Your task to perform on an android device: check google app version Image 0: 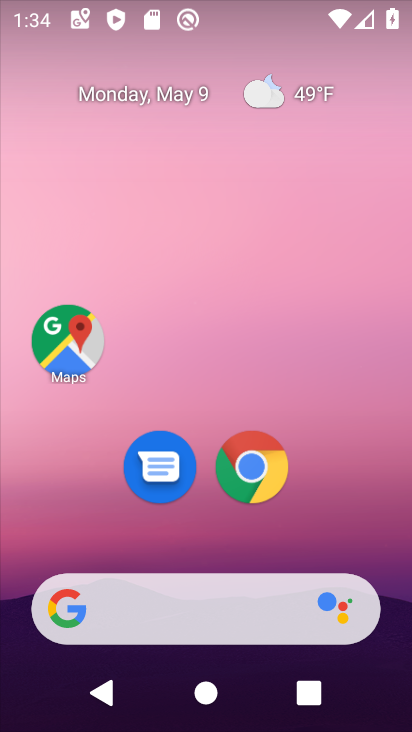
Step 0: press home button
Your task to perform on an android device: check google app version Image 1: 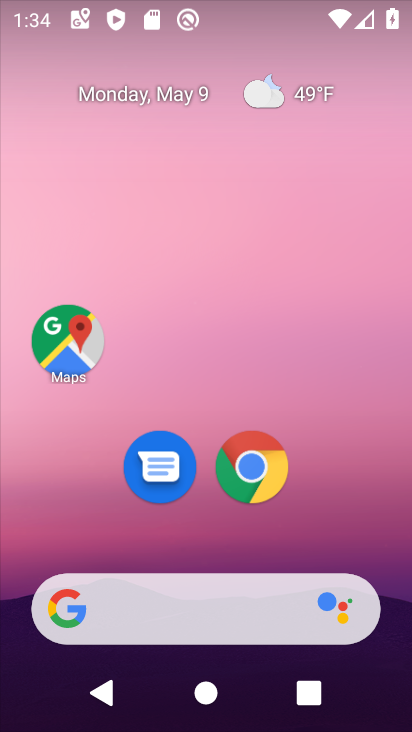
Step 1: drag from (367, 522) to (379, 100)
Your task to perform on an android device: check google app version Image 2: 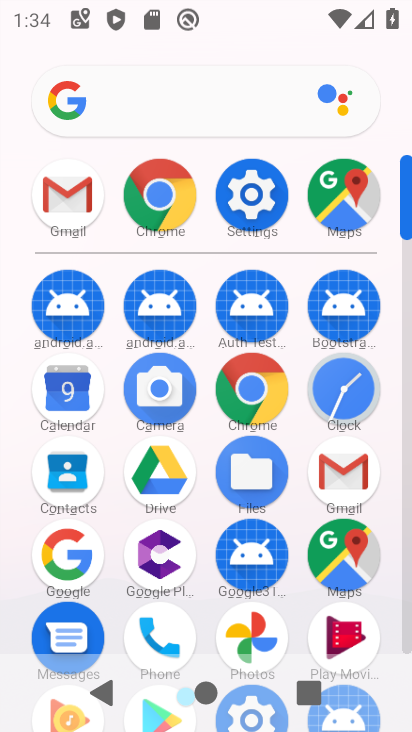
Step 2: click (47, 558)
Your task to perform on an android device: check google app version Image 3: 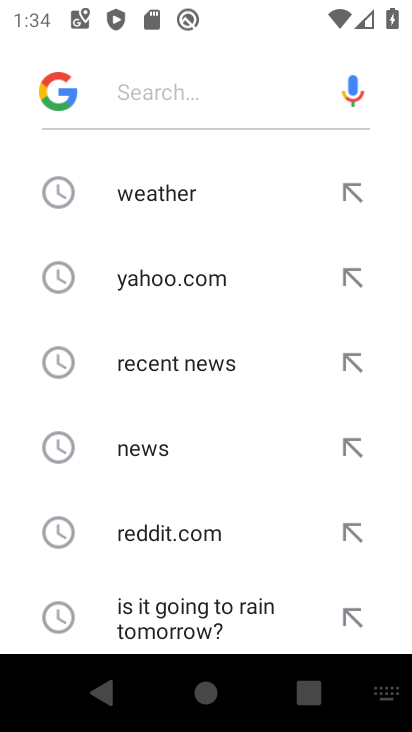
Step 3: press back button
Your task to perform on an android device: check google app version Image 4: 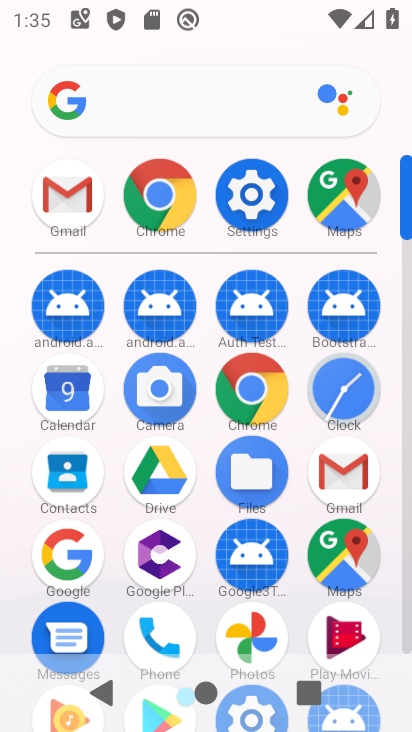
Step 4: drag from (203, 598) to (199, 324)
Your task to perform on an android device: check google app version Image 5: 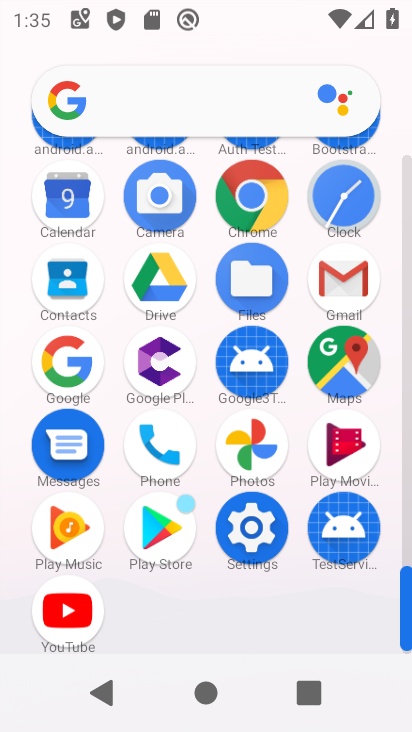
Step 5: click (84, 395)
Your task to perform on an android device: check google app version Image 6: 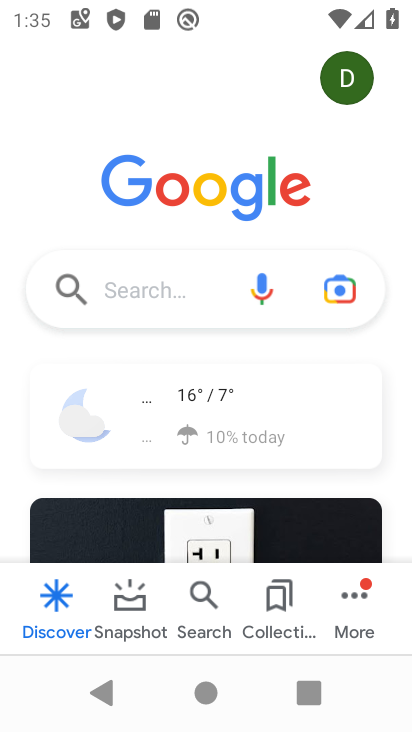
Step 6: click (356, 616)
Your task to perform on an android device: check google app version Image 7: 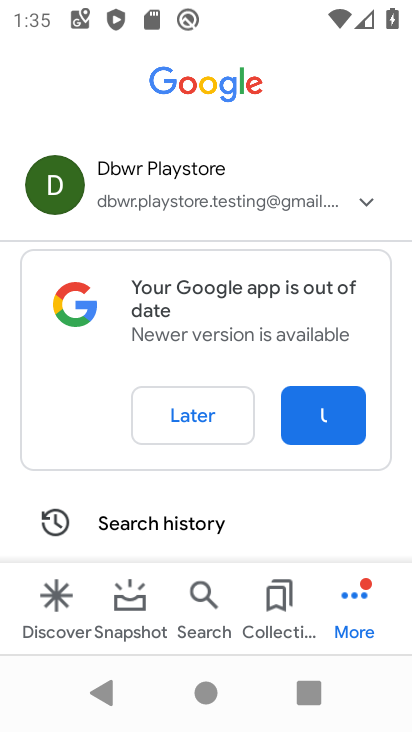
Step 7: drag from (277, 508) to (294, 126)
Your task to perform on an android device: check google app version Image 8: 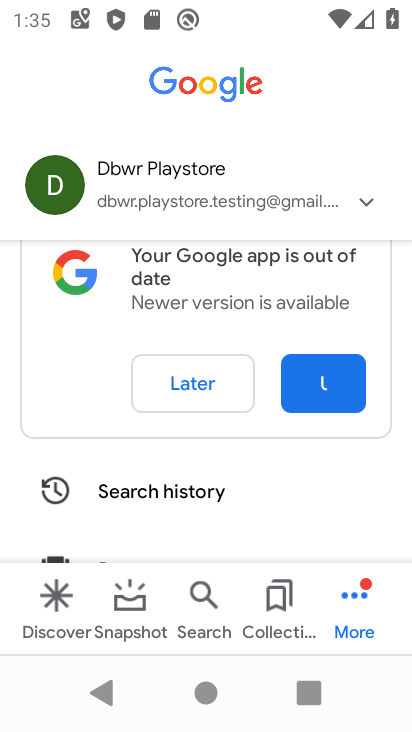
Step 8: drag from (304, 517) to (305, 253)
Your task to perform on an android device: check google app version Image 9: 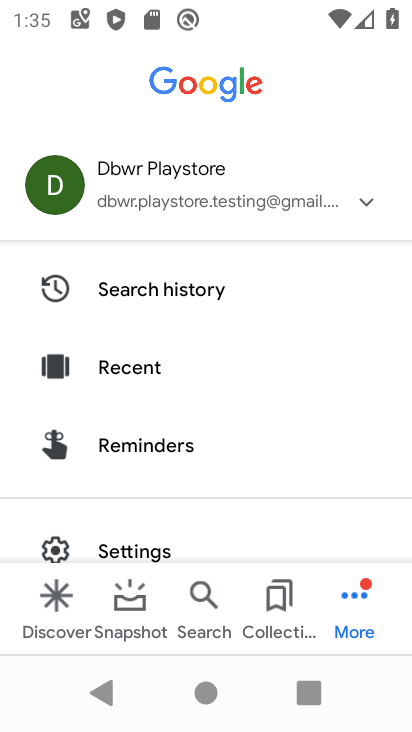
Step 9: drag from (288, 524) to (297, 244)
Your task to perform on an android device: check google app version Image 10: 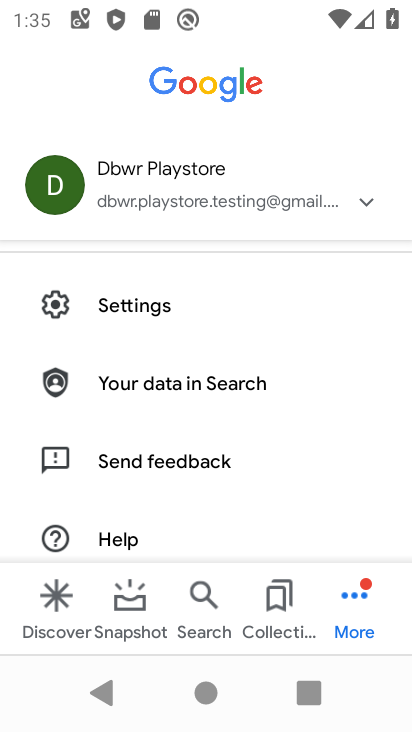
Step 10: click (138, 311)
Your task to perform on an android device: check google app version Image 11: 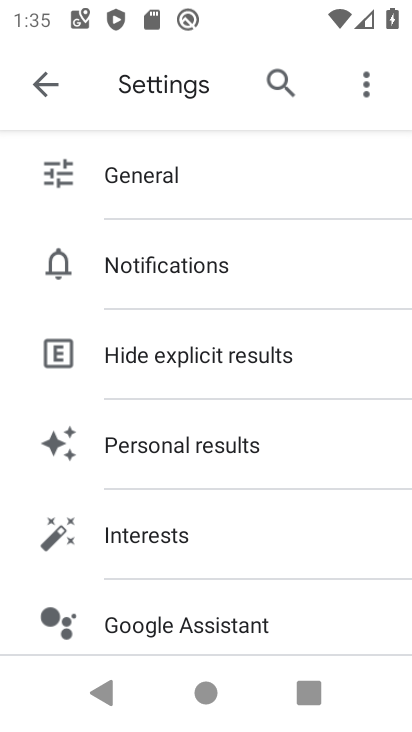
Step 11: drag from (293, 572) to (285, 204)
Your task to perform on an android device: check google app version Image 12: 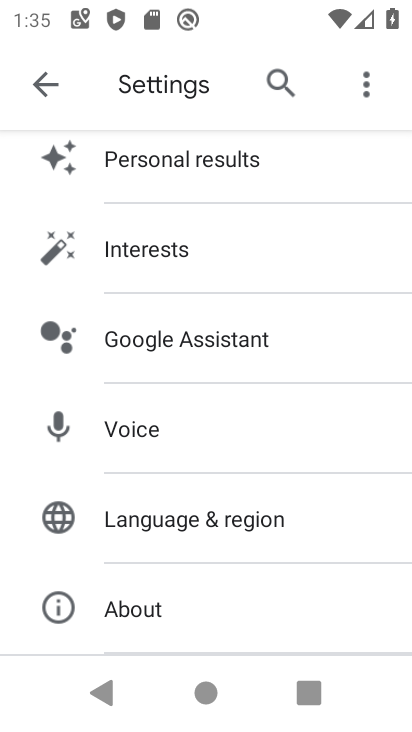
Step 12: click (174, 605)
Your task to perform on an android device: check google app version Image 13: 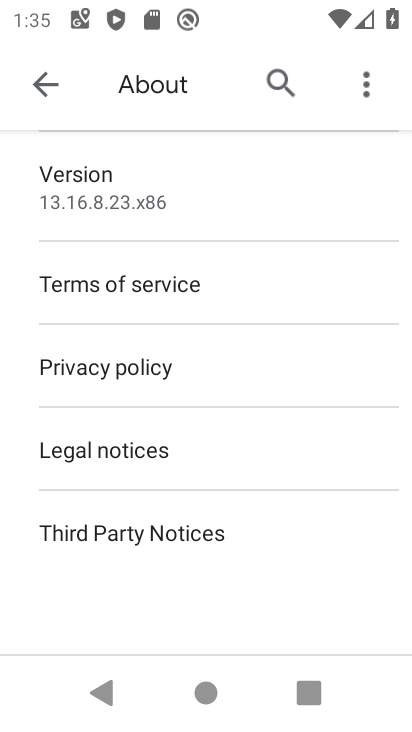
Step 13: task complete